Your task to perform on an android device: Clear all items from cart on newegg.com. Image 0: 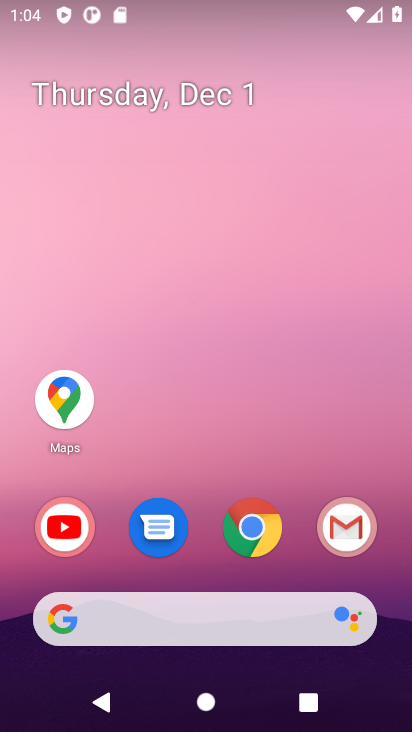
Step 0: click (255, 532)
Your task to perform on an android device: Clear all items from cart on newegg.com. Image 1: 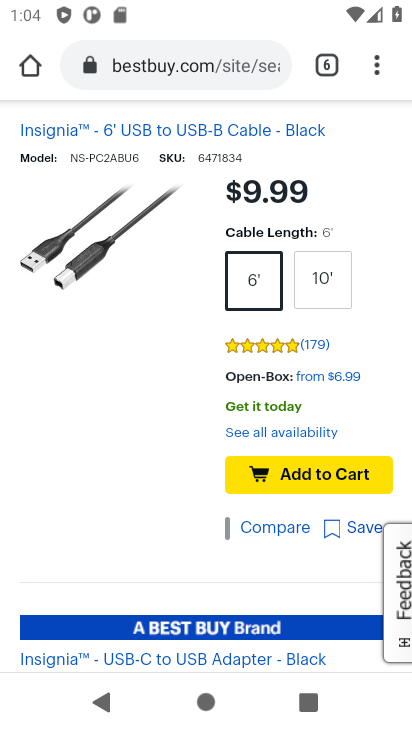
Step 1: click (178, 71)
Your task to perform on an android device: Clear all items from cart on newegg.com. Image 2: 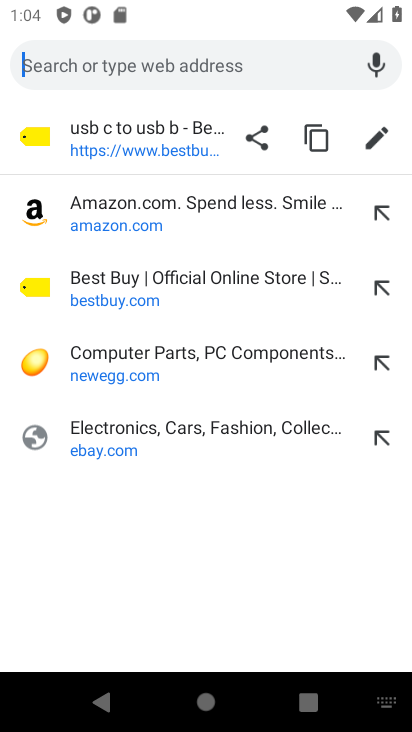
Step 2: click (89, 359)
Your task to perform on an android device: Clear all items from cart on newegg.com. Image 3: 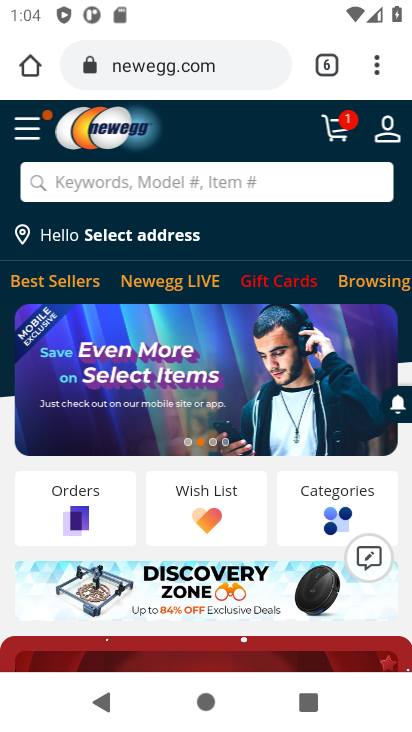
Step 3: click (335, 131)
Your task to perform on an android device: Clear all items from cart on newegg.com. Image 4: 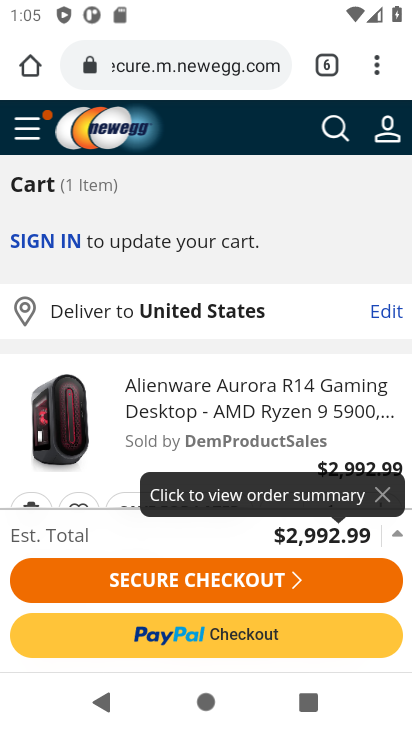
Step 4: drag from (269, 325) to (269, 134)
Your task to perform on an android device: Clear all items from cart on newegg.com. Image 5: 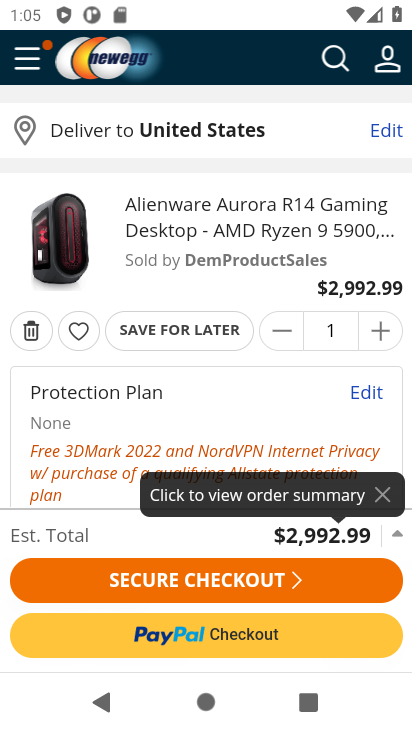
Step 5: click (22, 338)
Your task to perform on an android device: Clear all items from cart on newegg.com. Image 6: 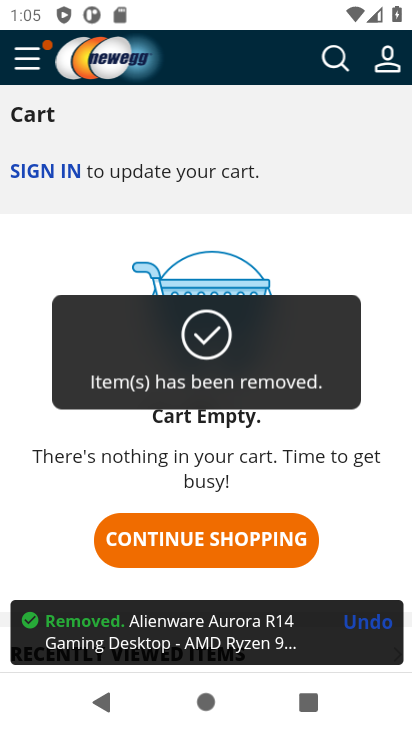
Step 6: task complete